Your task to perform on an android device: turn off sleep mode Image 0: 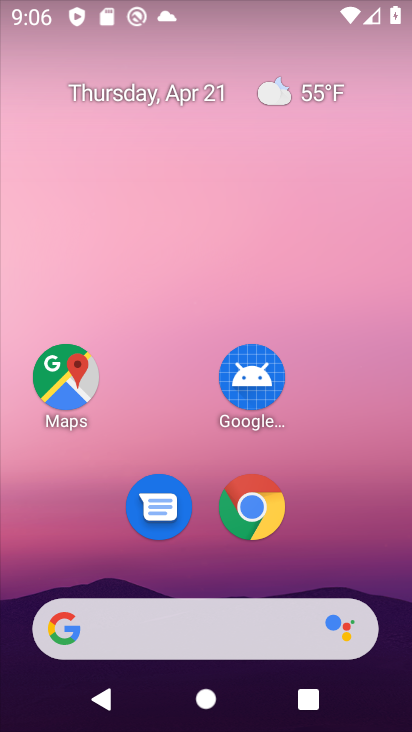
Step 0: drag from (276, 569) to (348, 249)
Your task to perform on an android device: turn off sleep mode Image 1: 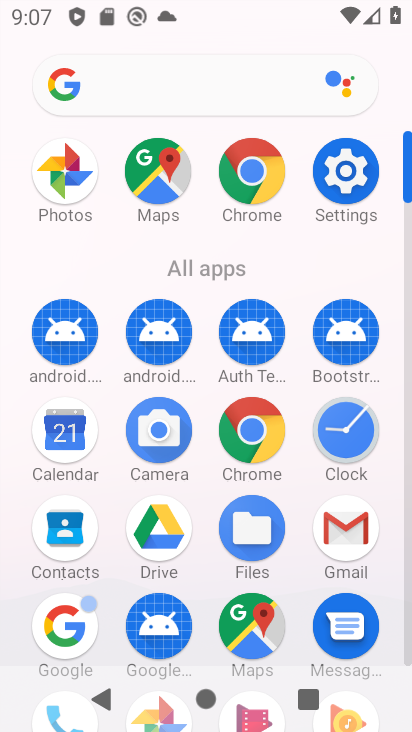
Step 1: click (358, 164)
Your task to perform on an android device: turn off sleep mode Image 2: 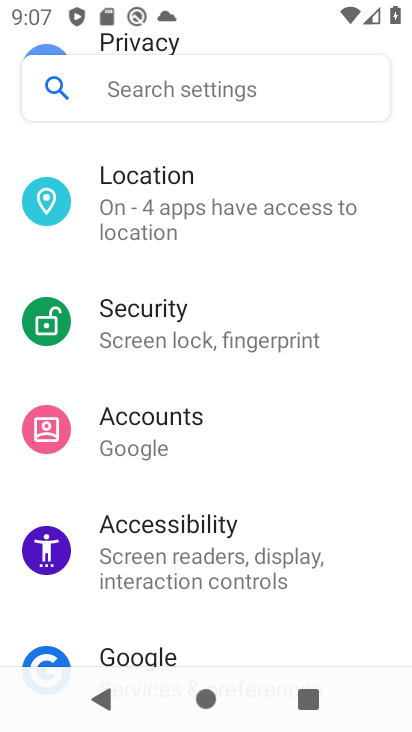
Step 2: task complete